Your task to perform on an android device: find which apps use the phone's location Image 0: 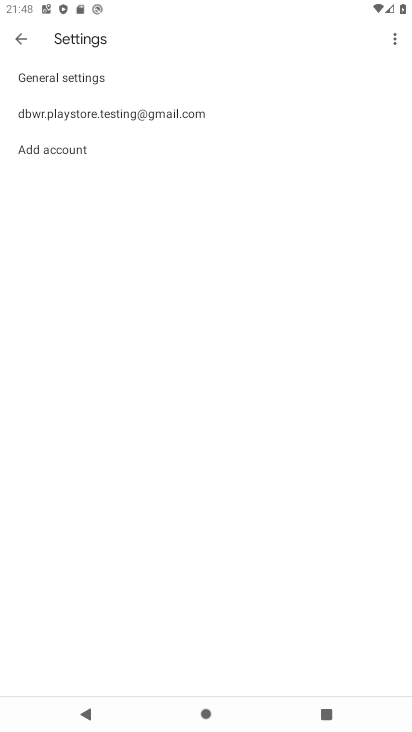
Step 0: press home button
Your task to perform on an android device: find which apps use the phone's location Image 1: 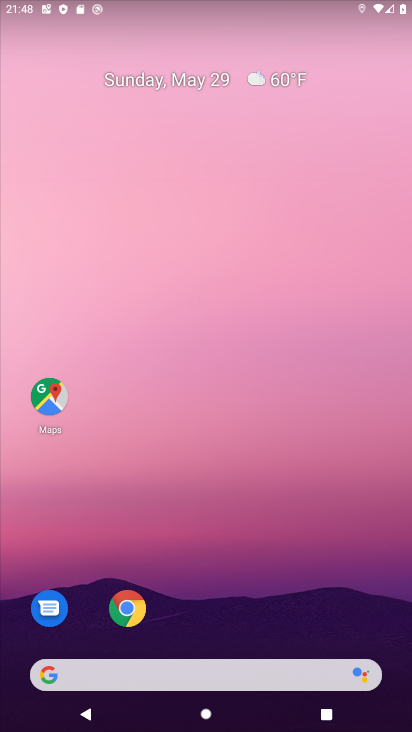
Step 1: drag from (367, 623) to (368, 304)
Your task to perform on an android device: find which apps use the phone's location Image 2: 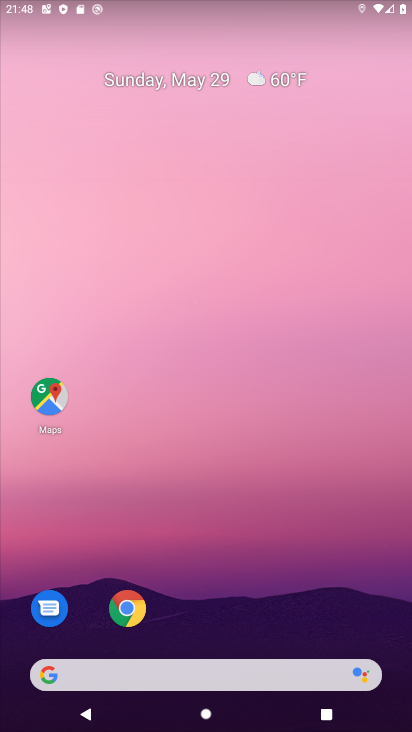
Step 2: drag from (362, 562) to (376, 379)
Your task to perform on an android device: find which apps use the phone's location Image 3: 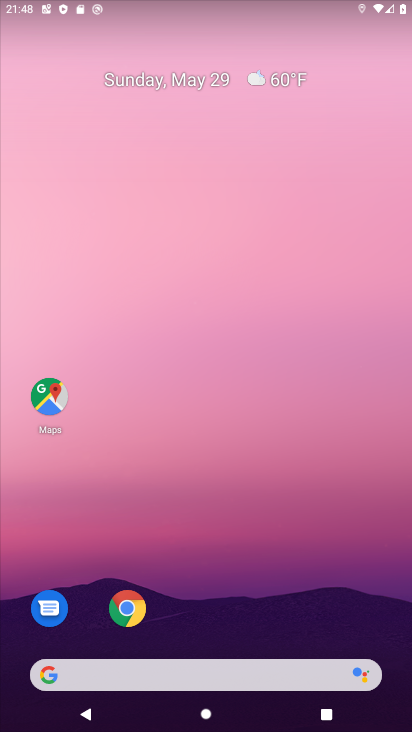
Step 3: drag from (316, 590) to (327, 1)
Your task to perform on an android device: find which apps use the phone's location Image 4: 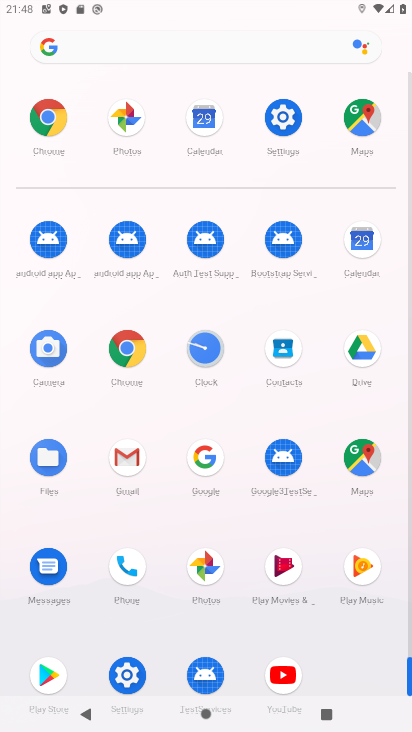
Step 4: click (141, 680)
Your task to perform on an android device: find which apps use the phone's location Image 5: 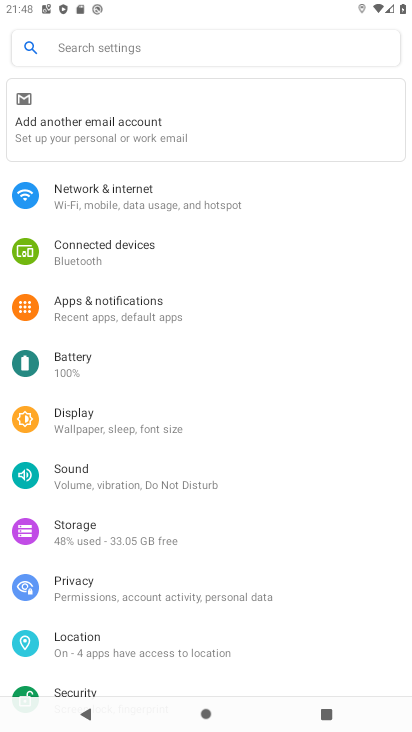
Step 5: drag from (315, 377) to (316, 445)
Your task to perform on an android device: find which apps use the phone's location Image 6: 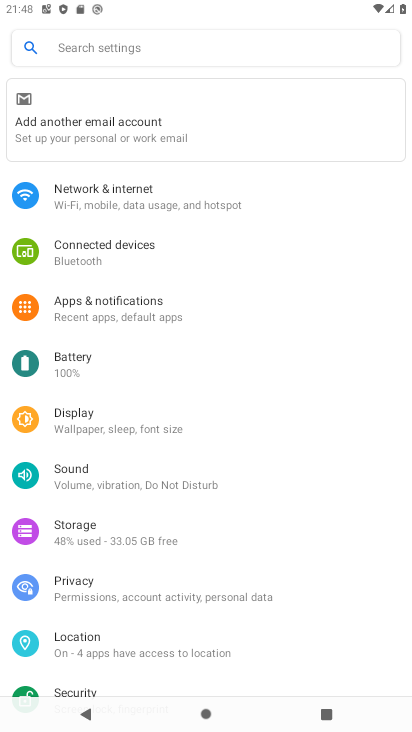
Step 6: drag from (318, 280) to (319, 447)
Your task to perform on an android device: find which apps use the phone's location Image 7: 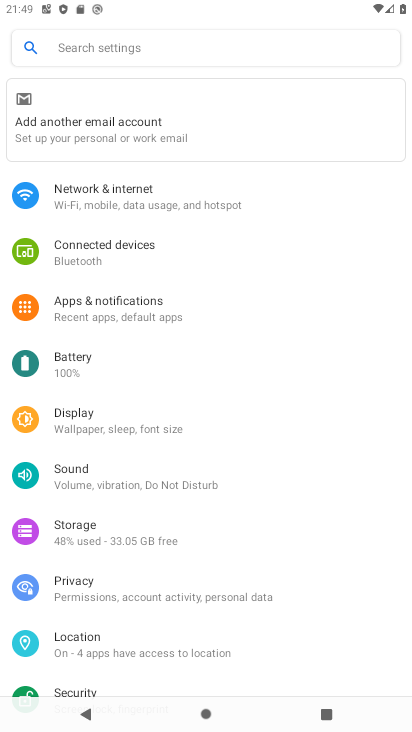
Step 7: drag from (344, 604) to (340, 457)
Your task to perform on an android device: find which apps use the phone's location Image 8: 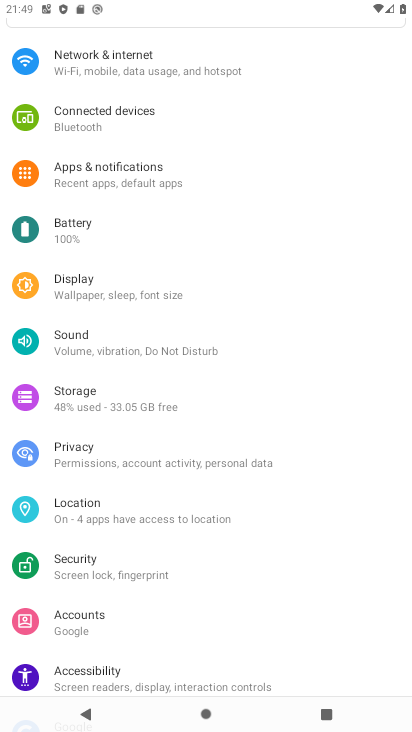
Step 8: click (217, 521)
Your task to perform on an android device: find which apps use the phone's location Image 9: 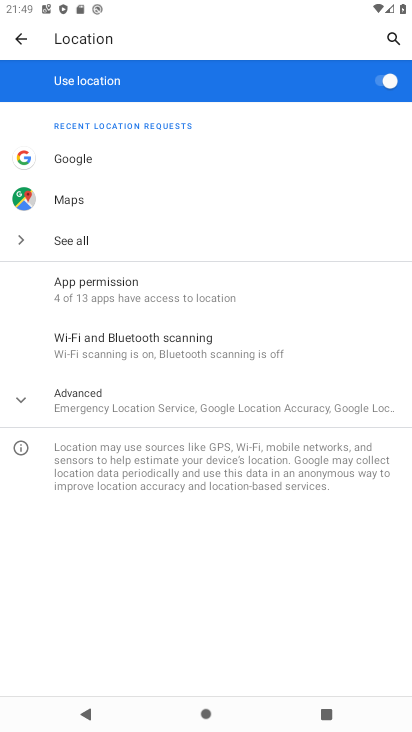
Step 9: click (210, 298)
Your task to perform on an android device: find which apps use the phone's location Image 10: 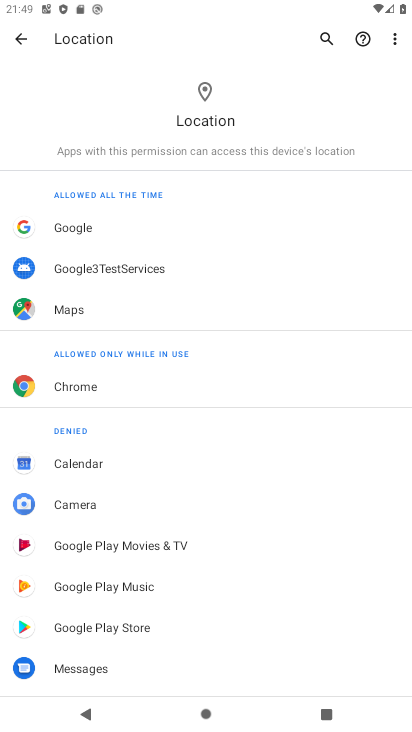
Step 10: drag from (314, 556) to (322, 327)
Your task to perform on an android device: find which apps use the phone's location Image 11: 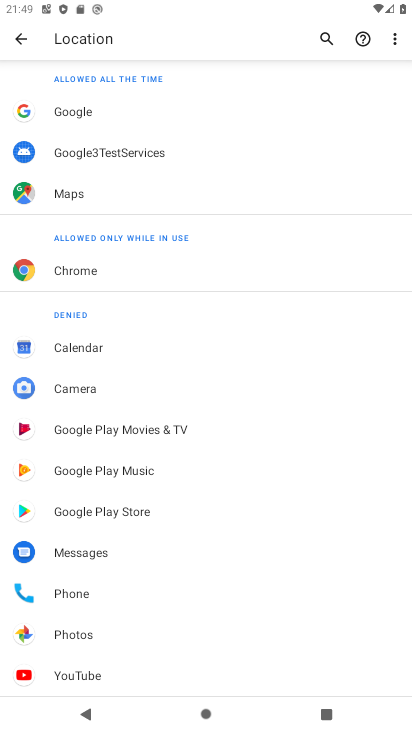
Step 11: click (94, 637)
Your task to perform on an android device: find which apps use the phone's location Image 12: 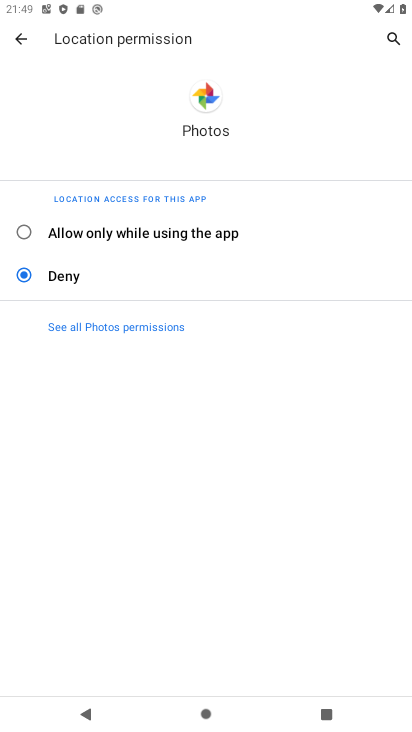
Step 12: click (240, 239)
Your task to perform on an android device: find which apps use the phone's location Image 13: 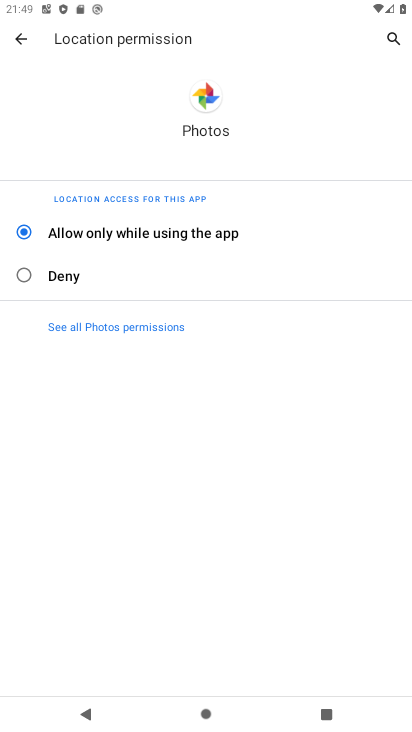
Step 13: task complete